Your task to perform on an android device: open device folders in google photos Image 0: 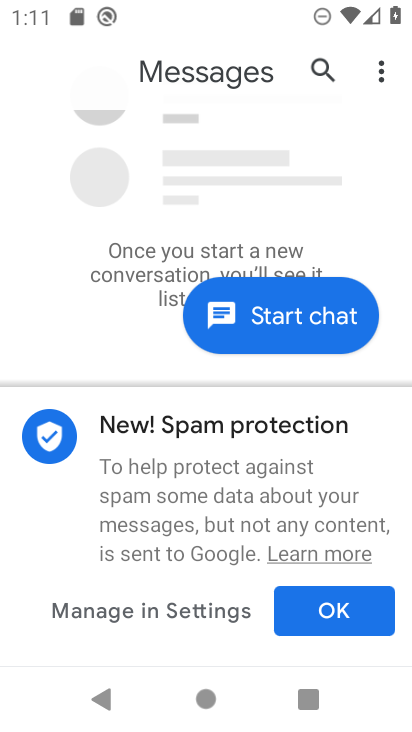
Step 0: press home button
Your task to perform on an android device: open device folders in google photos Image 1: 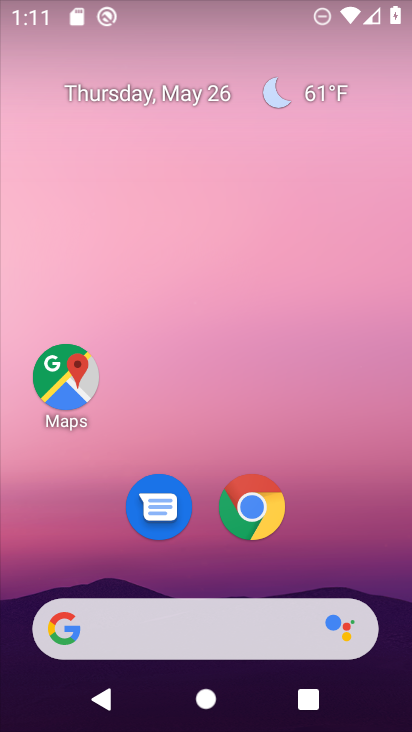
Step 1: drag from (363, 505) to (309, 93)
Your task to perform on an android device: open device folders in google photos Image 2: 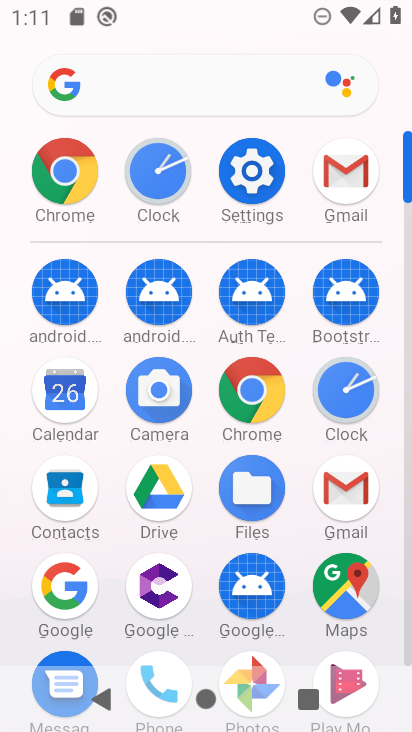
Step 2: click (233, 659)
Your task to perform on an android device: open device folders in google photos Image 3: 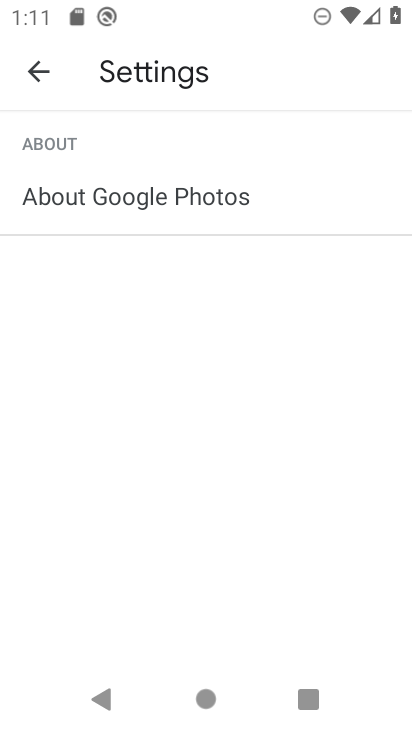
Step 3: click (25, 81)
Your task to perform on an android device: open device folders in google photos Image 4: 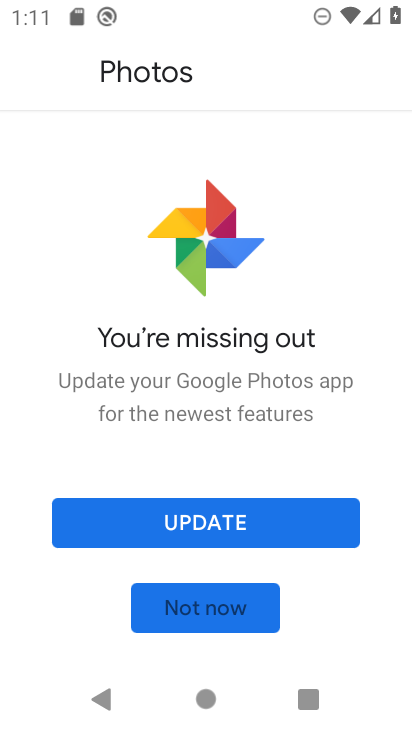
Step 4: click (297, 500)
Your task to perform on an android device: open device folders in google photos Image 5: 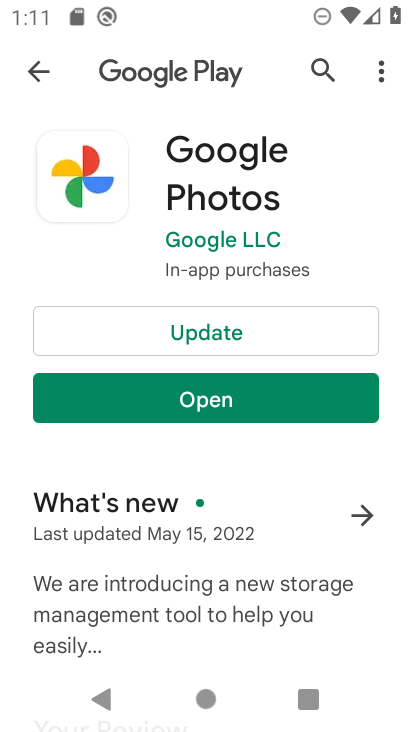
Step 5: click (185, 327)
Your task to perform on an android device: open device folders in google photos Image 6: 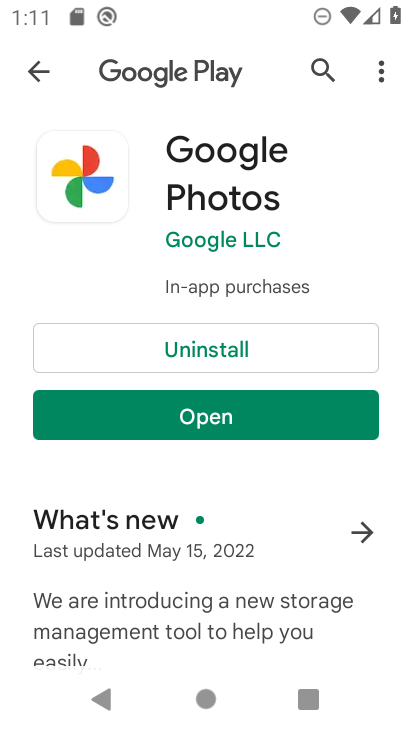
Step 6: click (229, 408)
Your task to perform on an android device: open device folders in google photos Image 7: 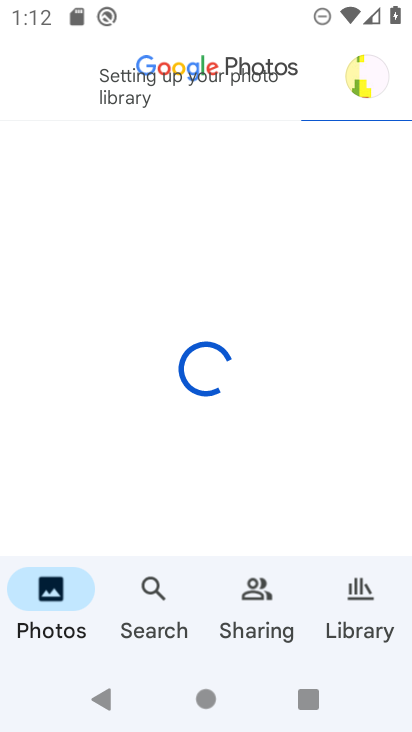
Step 7: task complete